Your task to perform on an android device: Open sound settings Image 0: 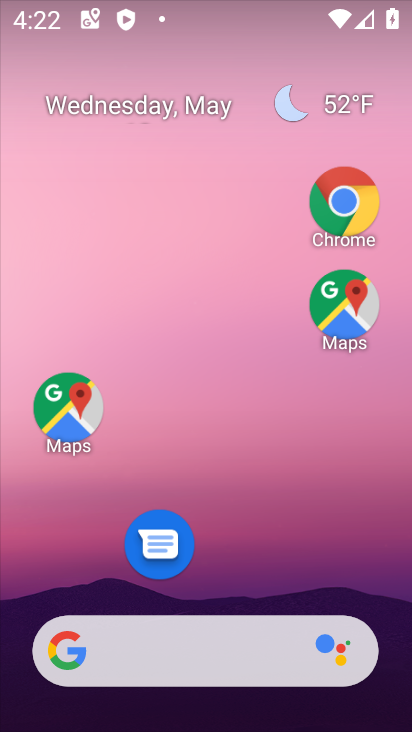
Step 0: drag from (272, 577) to (337, 3)
Your task to perform on an android device: Open sound settings Image 1: 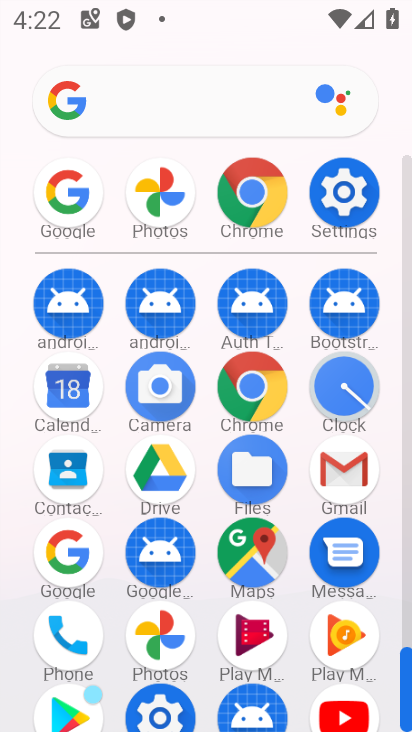
Step 1: click (334, 192)
Your task to perform on an android device: Open sound settings Image 2: 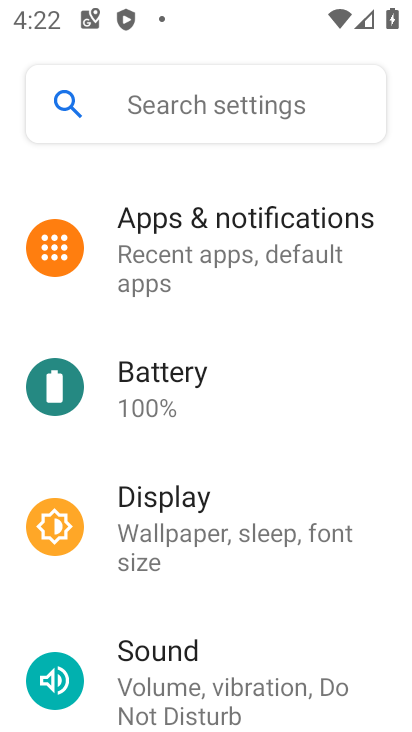
Step 2: click (191, 657)
Your task to perform on an android device: Open sound settings Image 3: 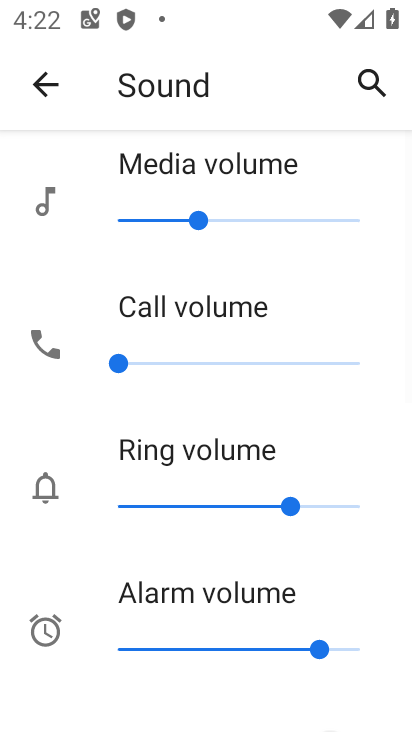
Step 3: task complete